Your task to perform on an android device: Go to display settings Image 0: 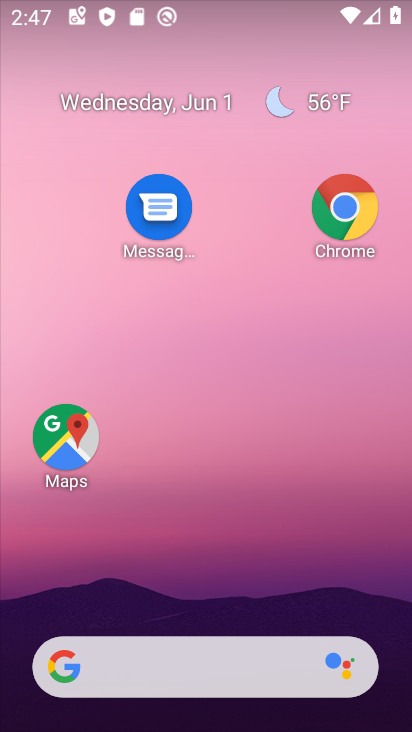
Step 0: click (245, 162)
Your task to perform on an android device: Go to display settings Image 1: 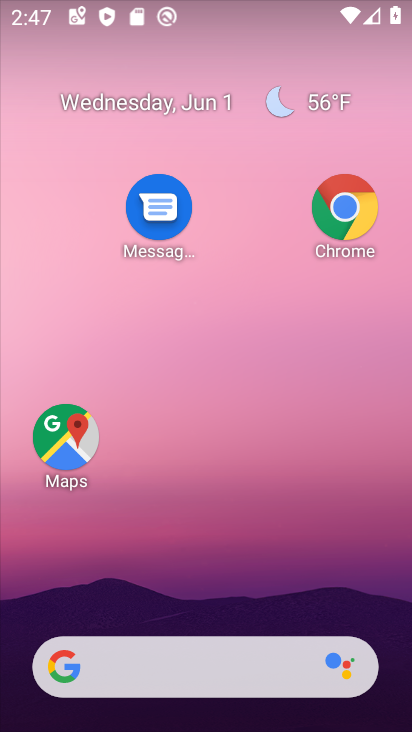
Step 1: drag from (193, 628) to (199, 11)
Your task to perform on an android device: Go to display settings Image 2: 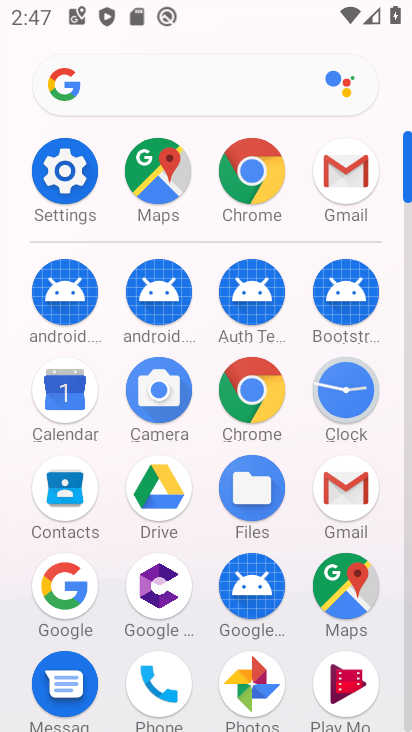
Step 2: click (77, 164)
Your task to perform on an android device: Go to display settings Image 3: 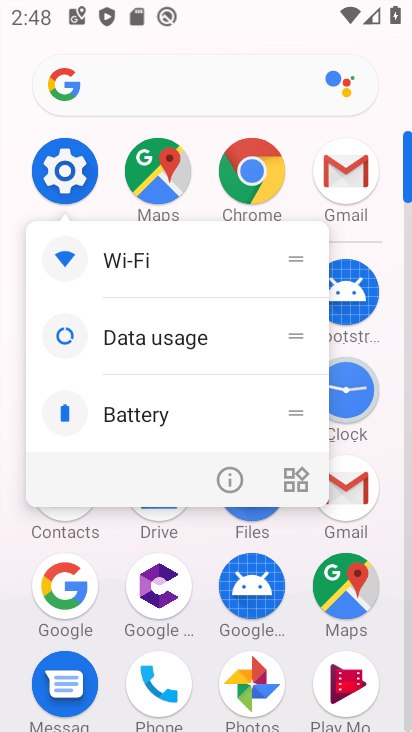
Step 3: click (222, 483)
Your task to perform on an android device: Go to display settings Image 4: 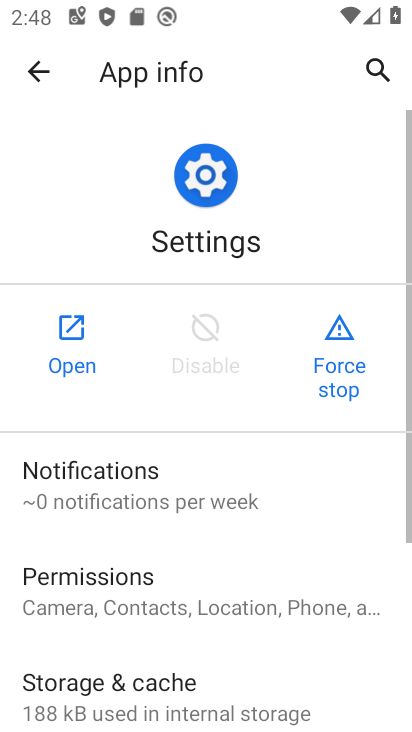
Step 4: click (56, 345)
Your task to perform on an android device: Go to display settings Image 5: 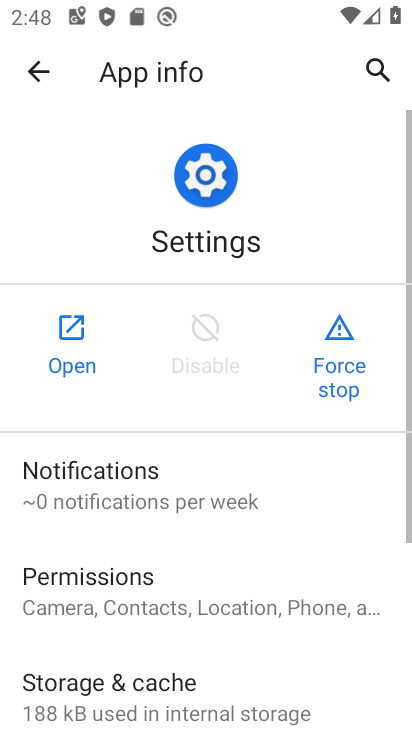
Step 5: click (56, 345)
Your task to perform on an android device: Go to display settings Image 6: 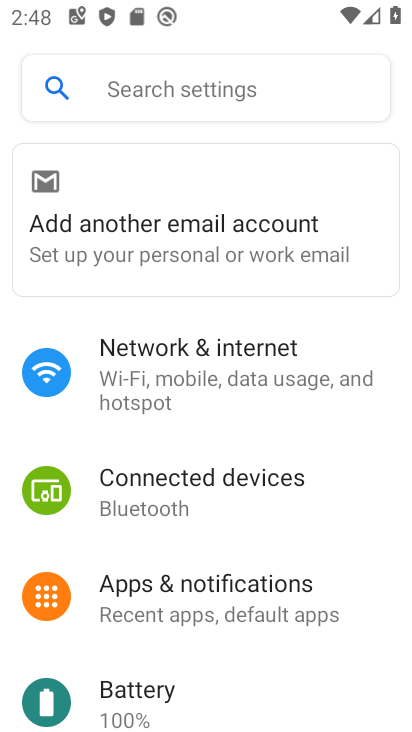
Step 6: drag from (198, 559) to (261, 175)
Your task to perform on an android device: Go to display settings Image 7: 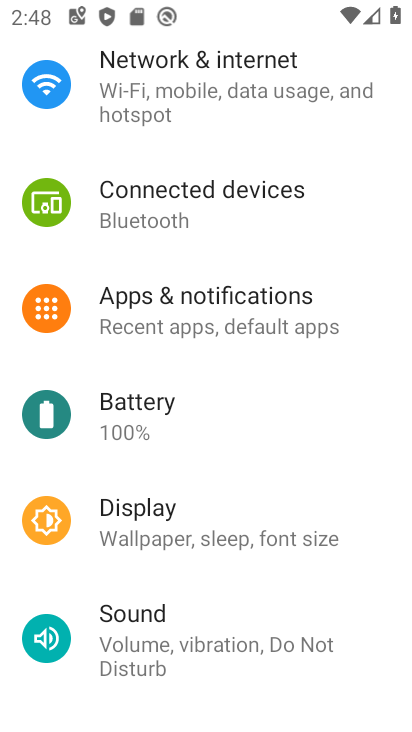
Step 7: click (193, 516)
Your task to perform on an android device: Go to display settings Image 8: 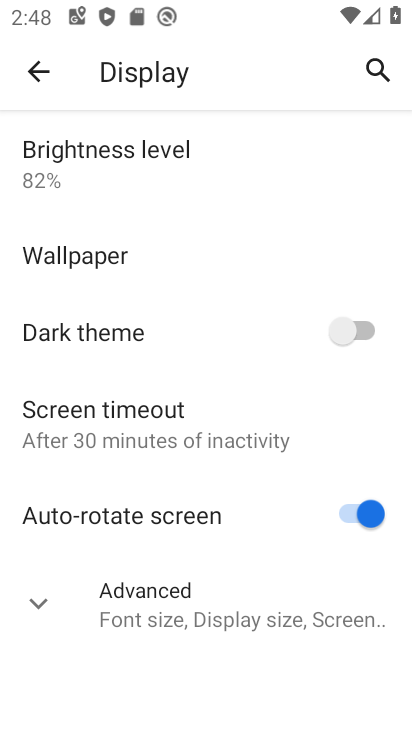
Step 8: task complete